Your task to perform on an android device: move an email to a new category in the gmail app Image 0: 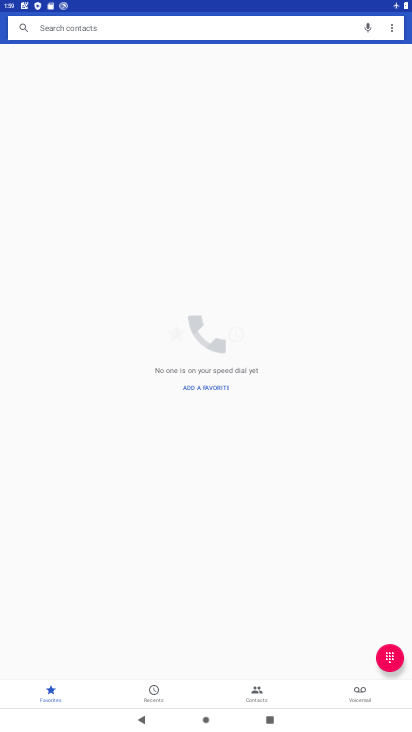
Step 0: press home button
Your task to perform on an android device: move an email to a new category in the gmail app Image 1: 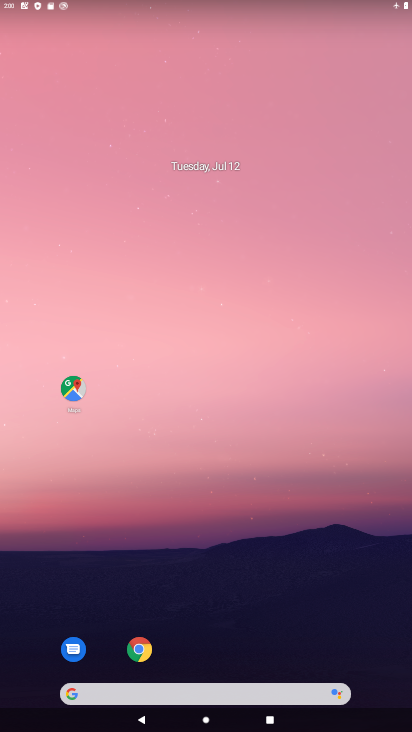
Step 1: drag from (275, 633) to (176, 145)
Your task to perform on an android device: move an email to a new category in the gmail app Image 2: 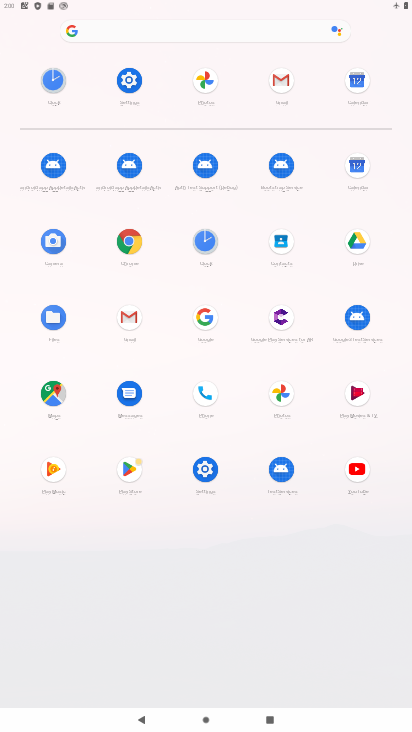
Step 2: click (276, 79)
Your task to perform on an android device: move an email to a new category in the gmail app Image 3: 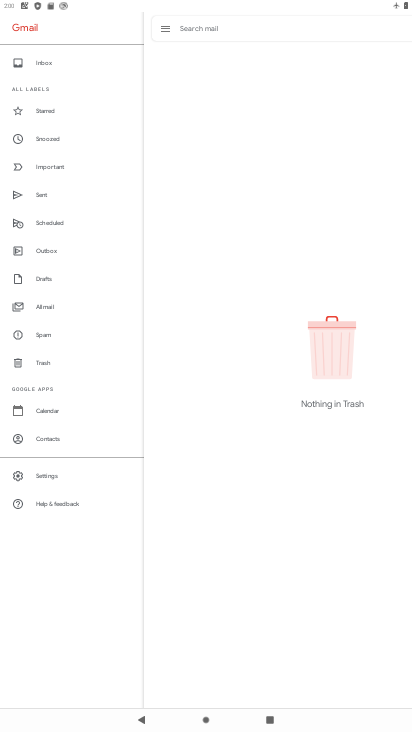
Step 3: click (64, 478)
Your task to perform on an android device: move an email to a new category in the gmail app Image 4: 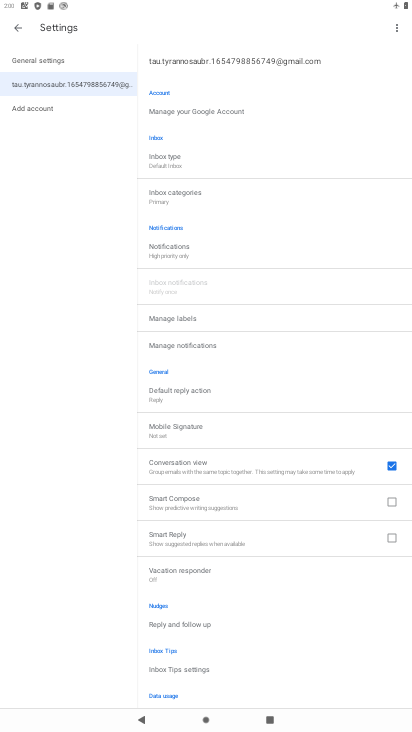
Step 4: click (189, 191)
Your task to perform on an android device: move an email to a new category in the gmail app Image 5: 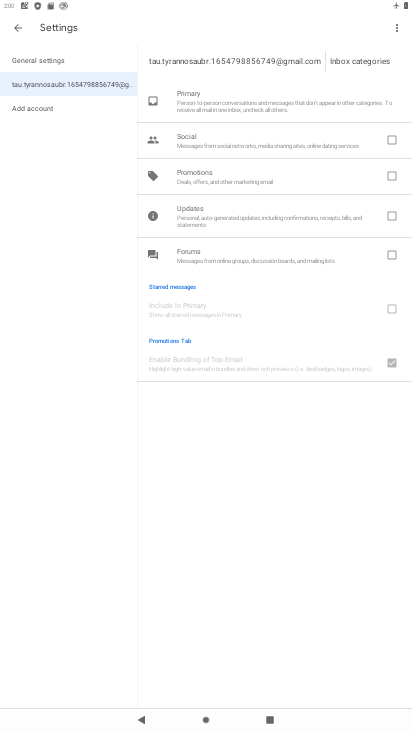
Step 5: click (13, 26)
Your task to perform on an android device: move an email to a new category in the gmail app Image 6: 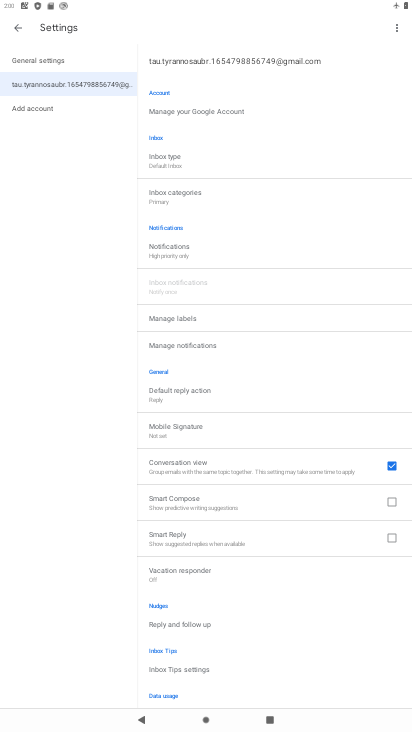
Step 6: click (13, 26)
Your task to perform on an android device: move an email to a new category in the gmail app Image 7: 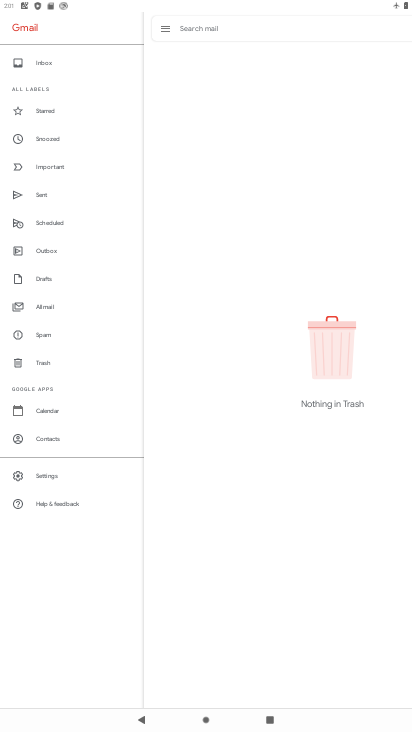
Step 7: click (64, 308)
Your task to perform on an android device: move an email to a new category in the gmail app Image 8: 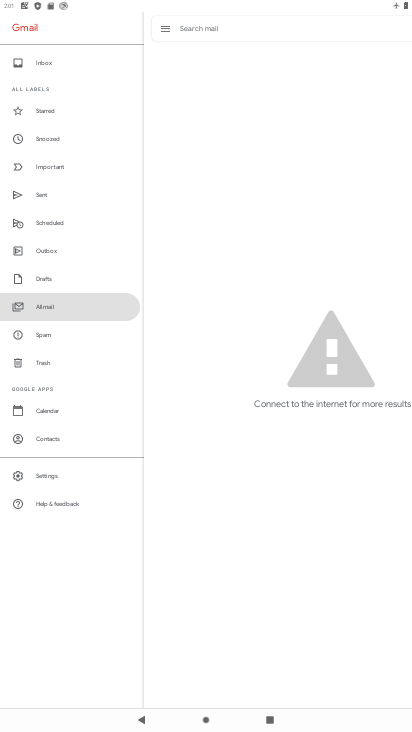
Step 8: task complete